Your task to perform on an android device: turn on sleep mode Image 0: 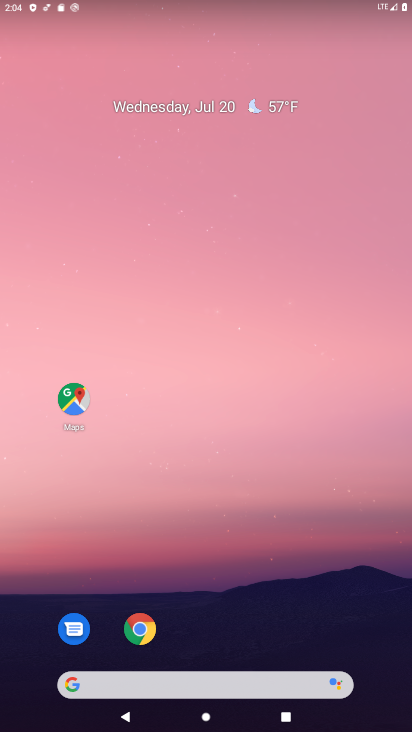
Step 0: drag from (389, 669) to (363, 59)
Your task to perform on an android device: turn on sleep mode Image 1: 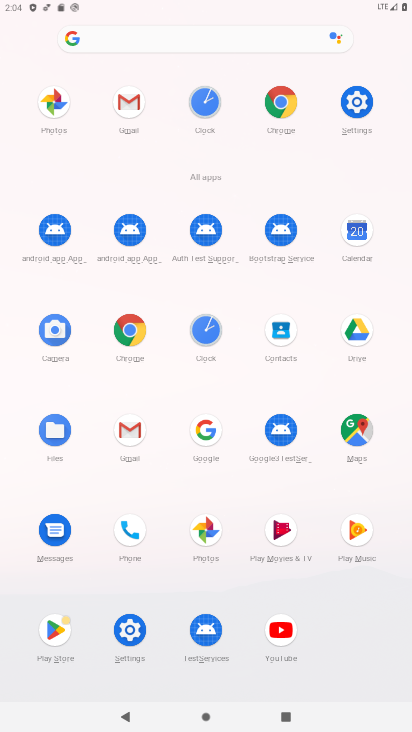
Step 1: click (130, 632)
Your task to perform on an android device: turn on sleep mode Image 2: 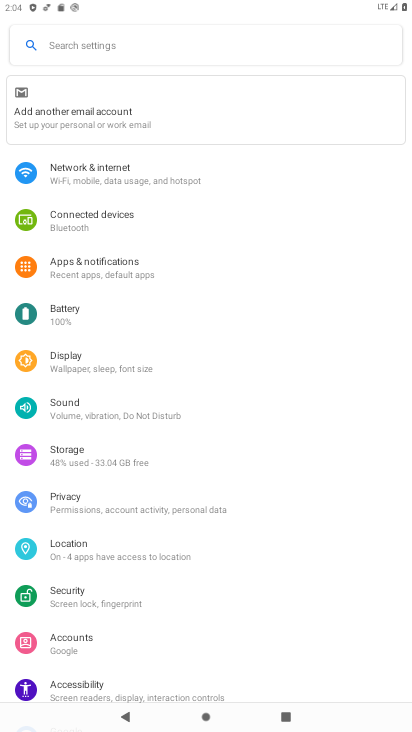
Step 2: click (76, 362)
Your task to perform on an android device: turn on sleep mode Image 3: 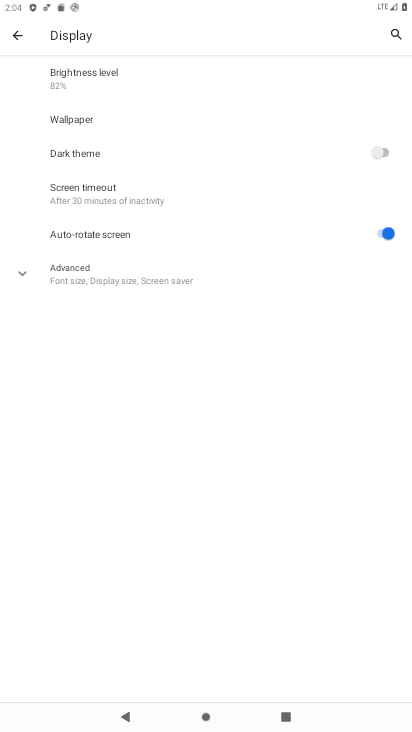
Step 3: click (22, 275)
Your task to perform on an android device: turn on sleep mode Image 4: 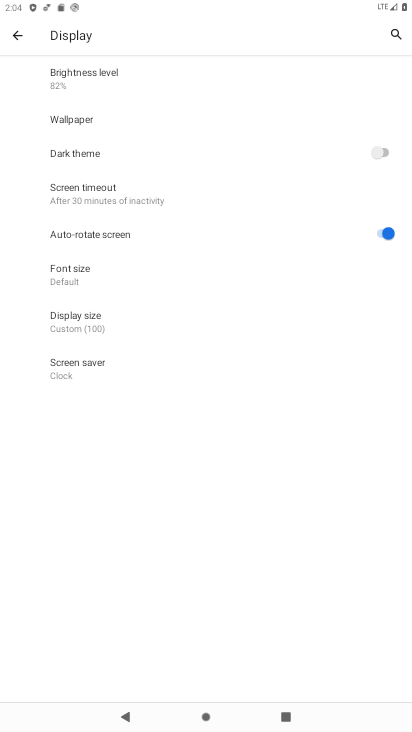
Step 4: task complete